Your task to perform on an android device: create a new album in the google photos Image 0: 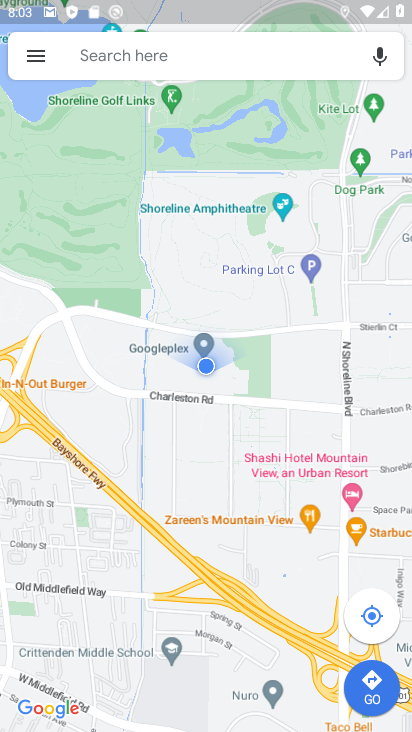
Step 0: press home button
Your task to perform on an android device: create a new album in the google photos Image 1: 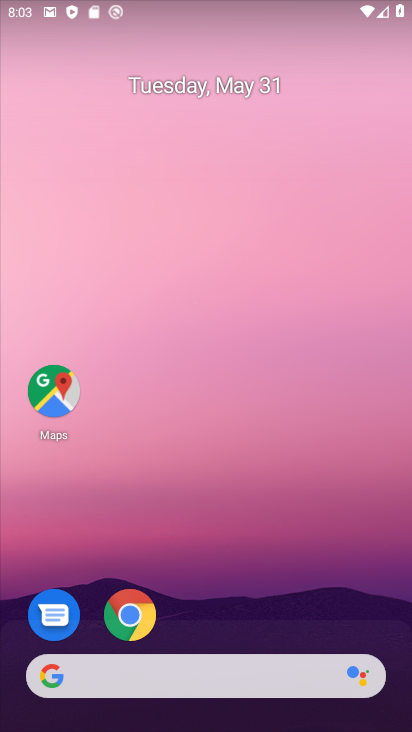
Step 1: drag from (354, 568) to (340, 177)
Your task to perform on an android device: create a new album in the google photos Image 2: 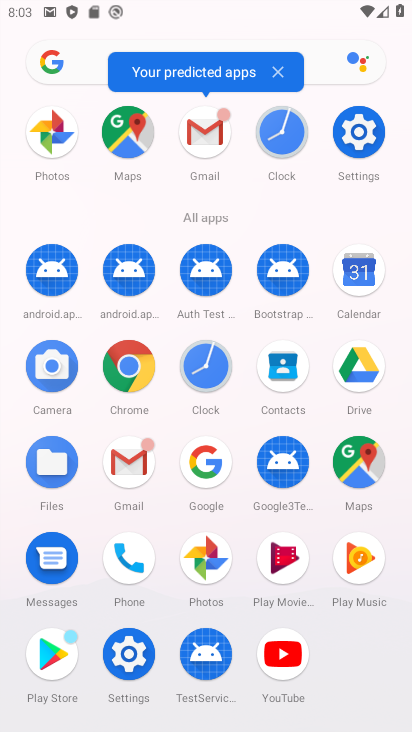
Step 2: click (204, 554)
Your task to perform on an android device: create a new album in the google photos Image 3: 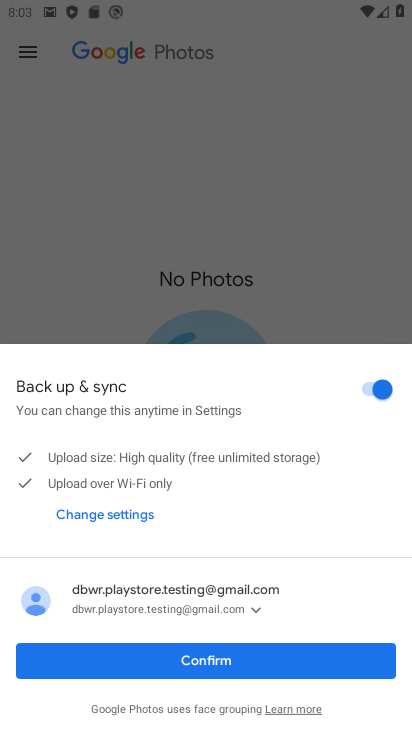
Step 3: click (182, 665)
Your task to perform on an android device: create a new album in the google photos Image 4: 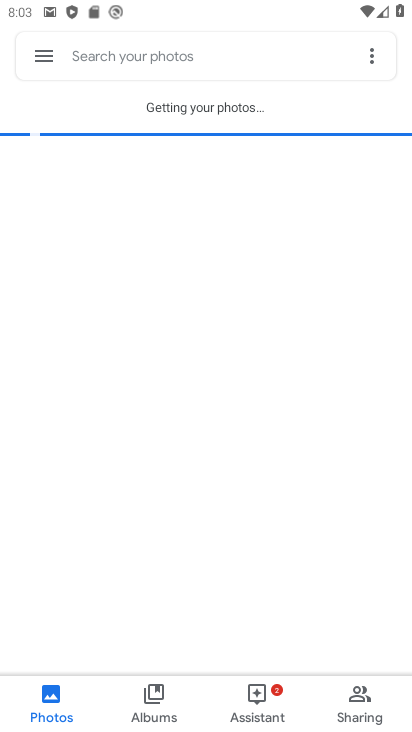
Step 4: click (144, 702)
Your task to perform on an android device: create a new album in the google photos Image 5: 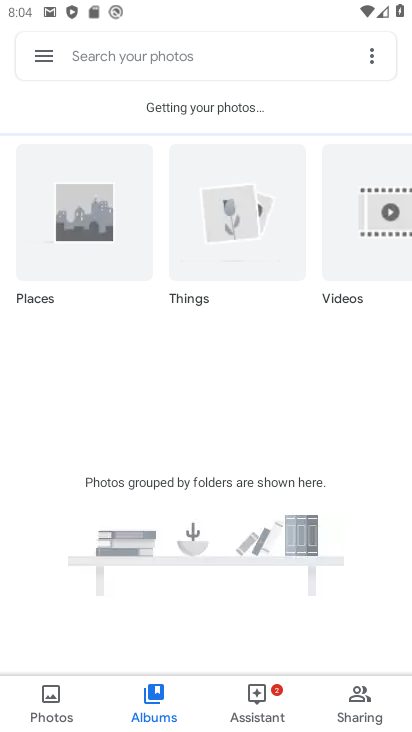
Step 5: click (370, 58)
Your task to perform on an android device: create a new album in the google photos Image 6: 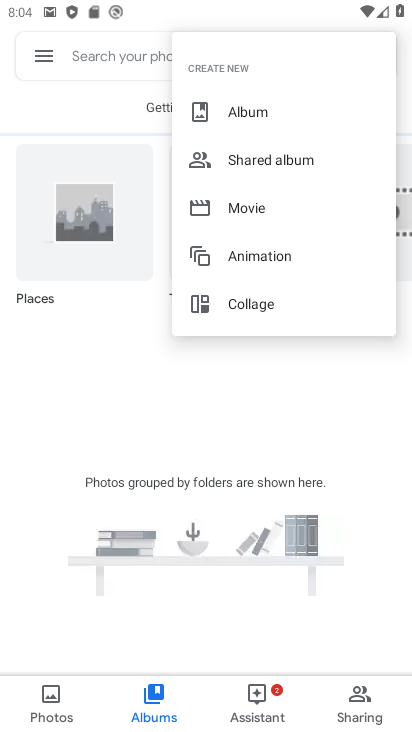
Step 6: click (245, 115)
Your task to perform on an android device: create a new album in the google photos Image 7: 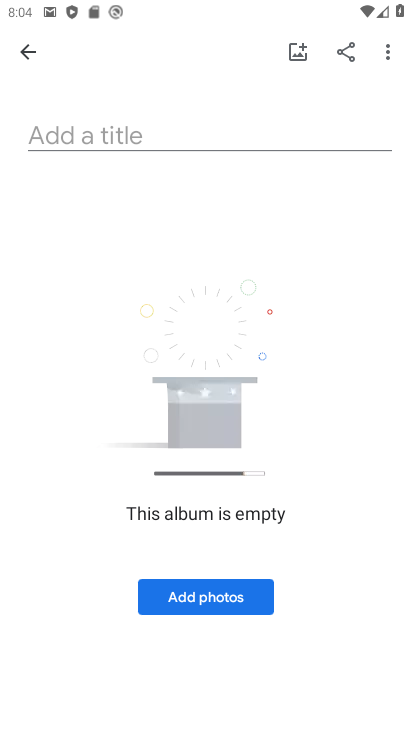
Step 7: click (150, 136)
Your task to perform on an android device: create a new album in the google photos Image 8: 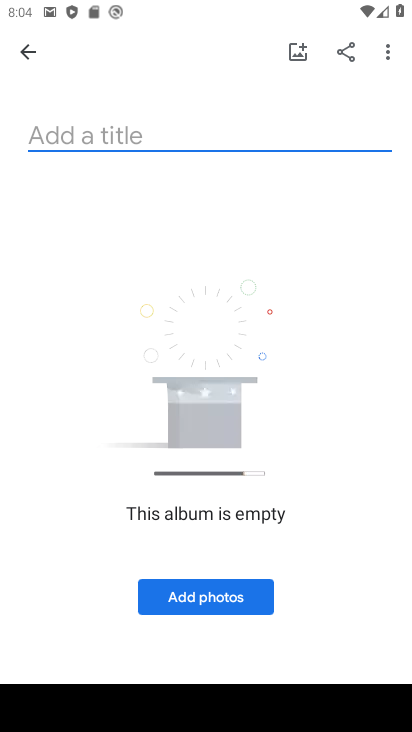
Step 8: type "iuiytrfgn"
Your task to perform on an android device: create a new album in the google photos Image 9: 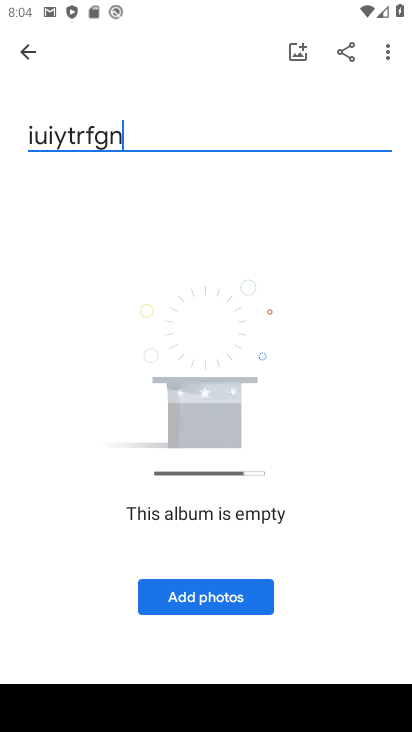
Step 9: click (212, 602)
Your task to perform on an android device: create a new album in the google photos Image 10: 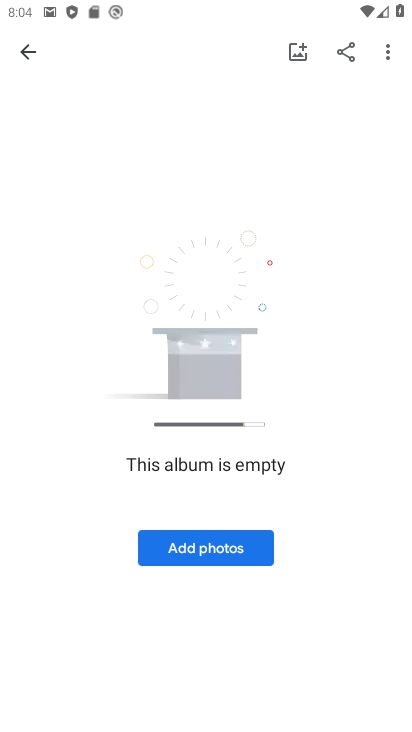
Step 10: click (207, 554)
Your task to perform on an android device: create a new album in the google photos Image 11: 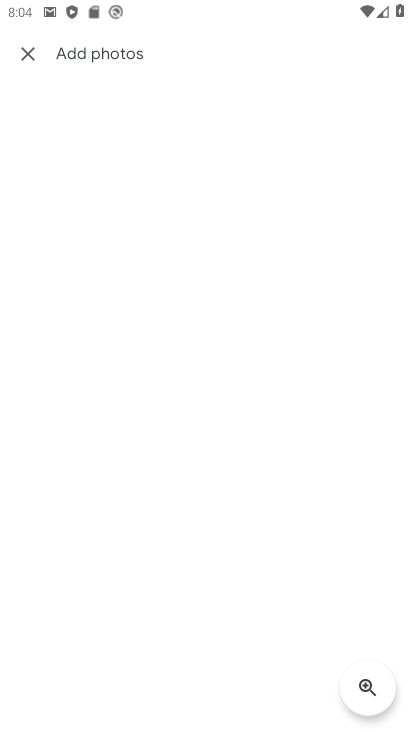
Step 11: task complete